Your task to perform on an android device: Clear the shopping cart on bestbuy.com. Image 0: 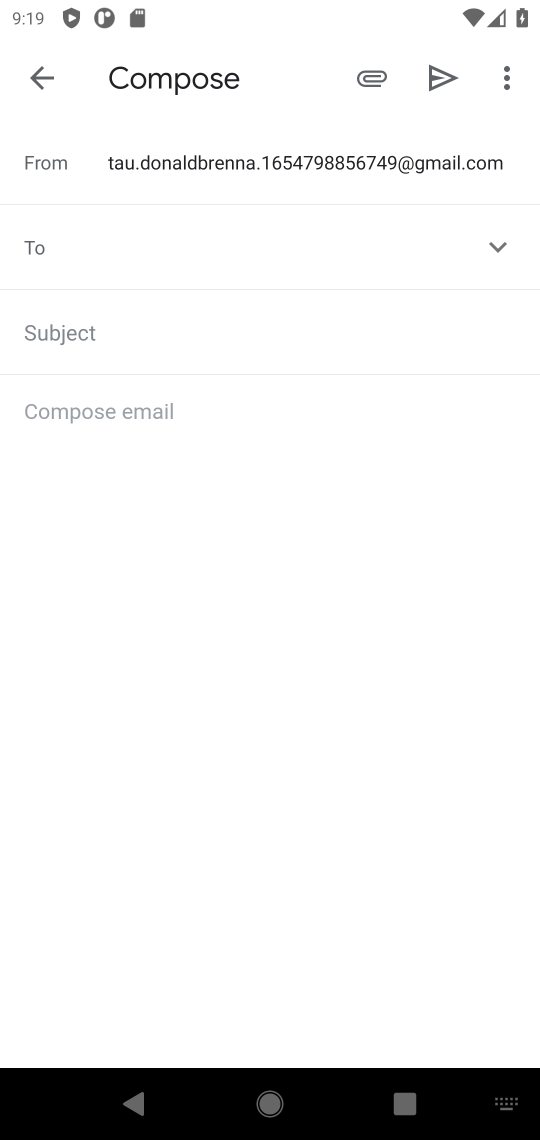
Step 0: press home button
Your task to perform on an android device: Clear the shopping cart on bestbuy.com. Image 1: 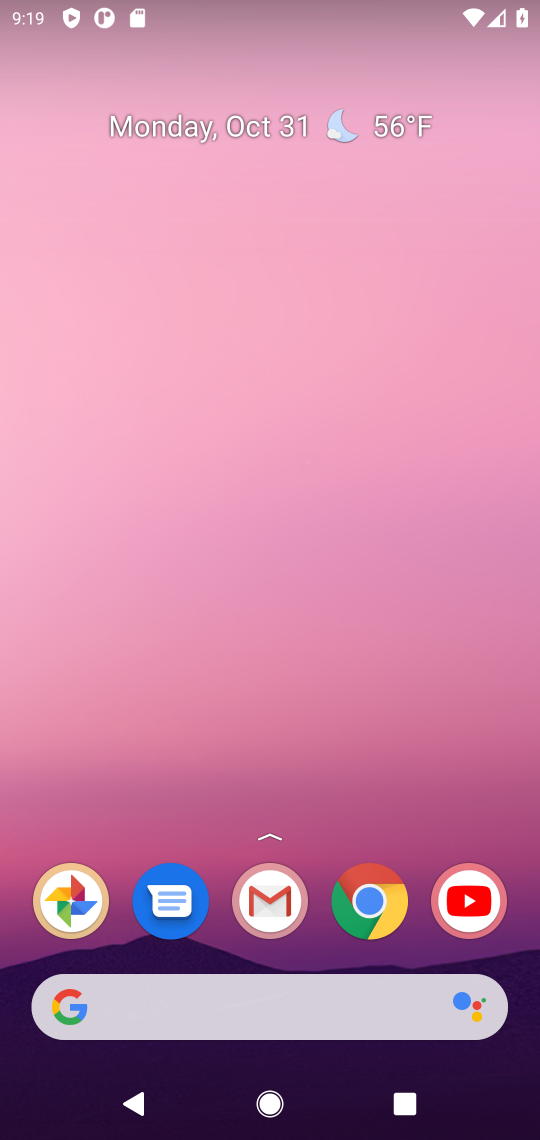
Step 1: drag from (235, 972) to (228, 162)
Your task to perform on an android device: Clear the shopping cart on bestbuy.com. Image 2: 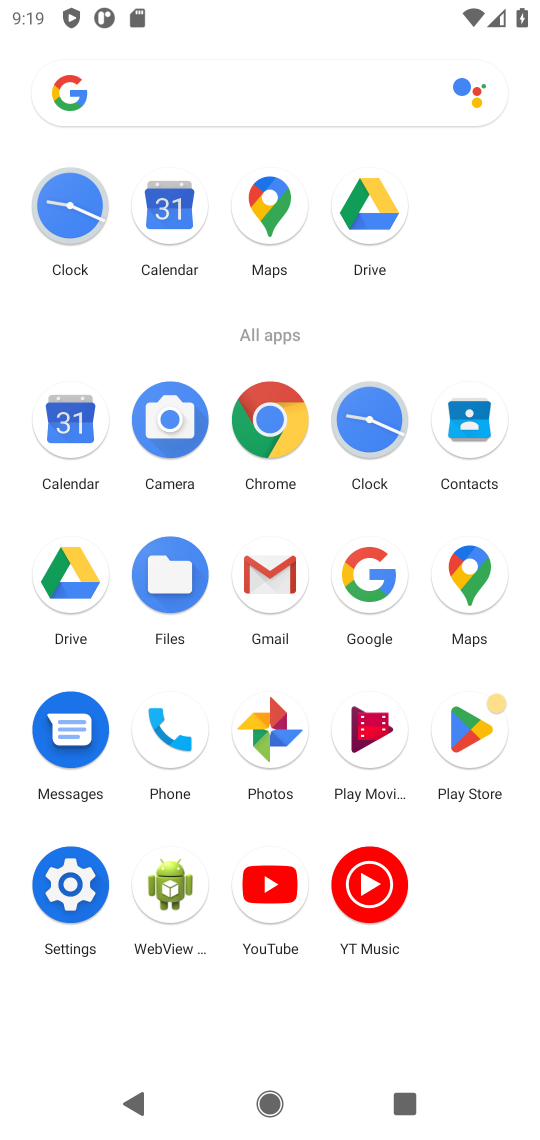
Step 2: click (362, 549)
Your task to perform on an android device: Clear the shopping cart on bestbuy.com. Image 3: 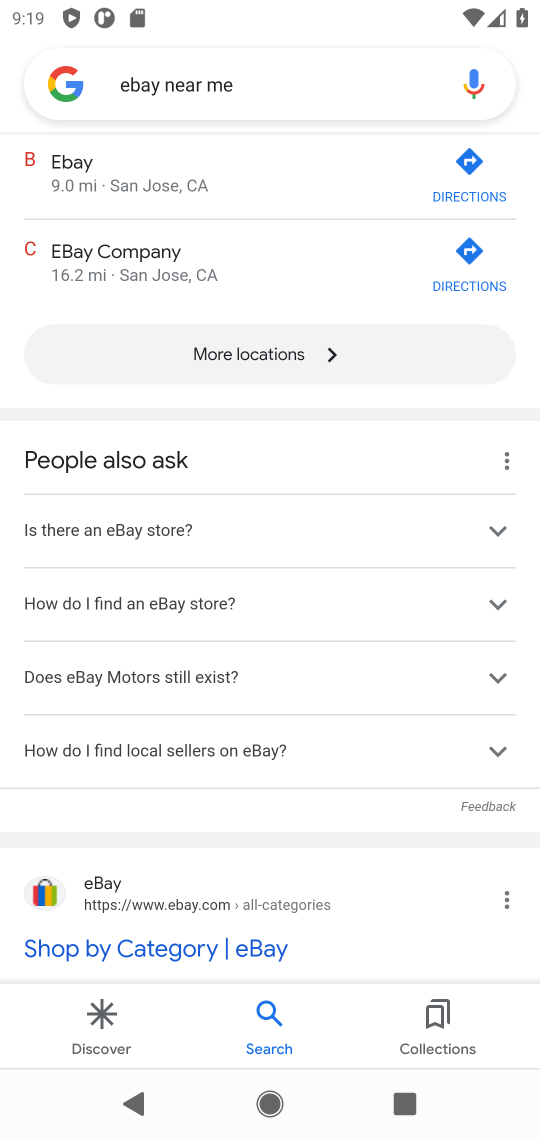
Step 3: click (248, 86)
Your task to perform on an android device: Clear the shopping cart on bestbuy.com. Image 4: 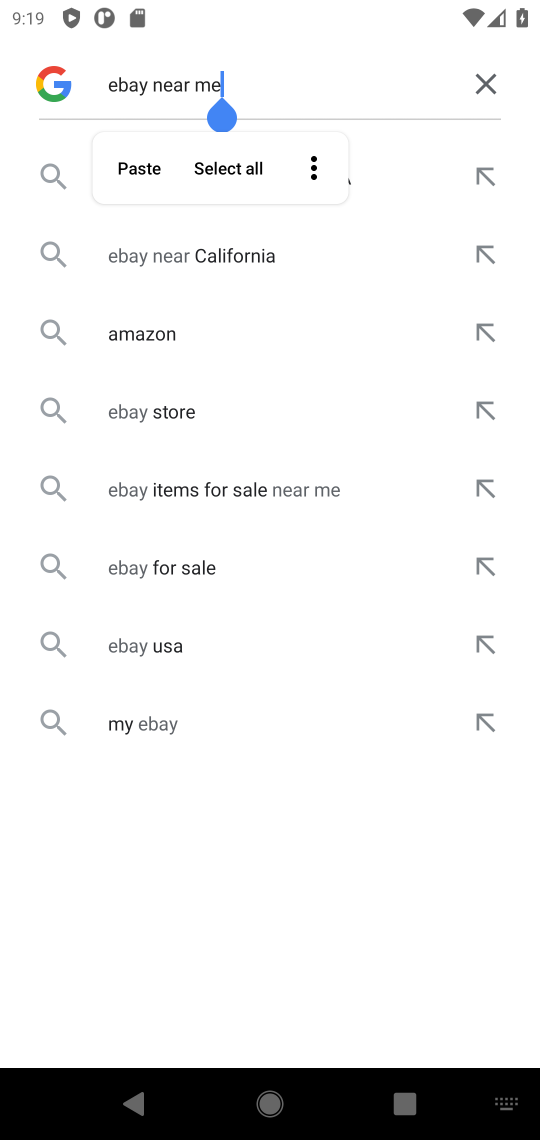
Step 4: click (484, 82)
Your task to perform on an android device: Clear the shopping cart on bestbuy.com. Image 5: 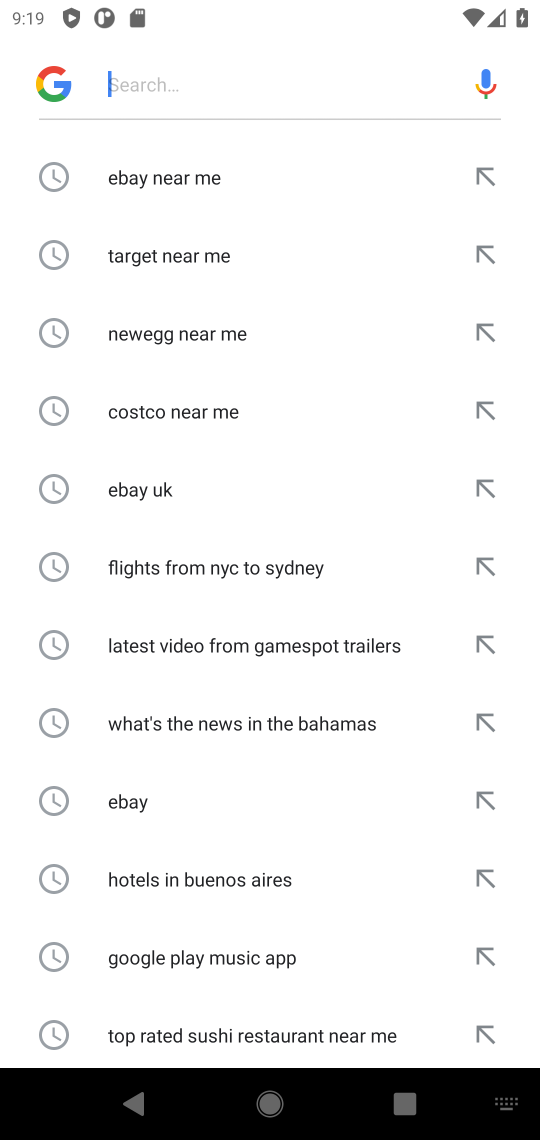
Step 5: click (187, 78)
Your task to perform on an android device: Clear the shopping cart on bestbuy.com. Image 6: 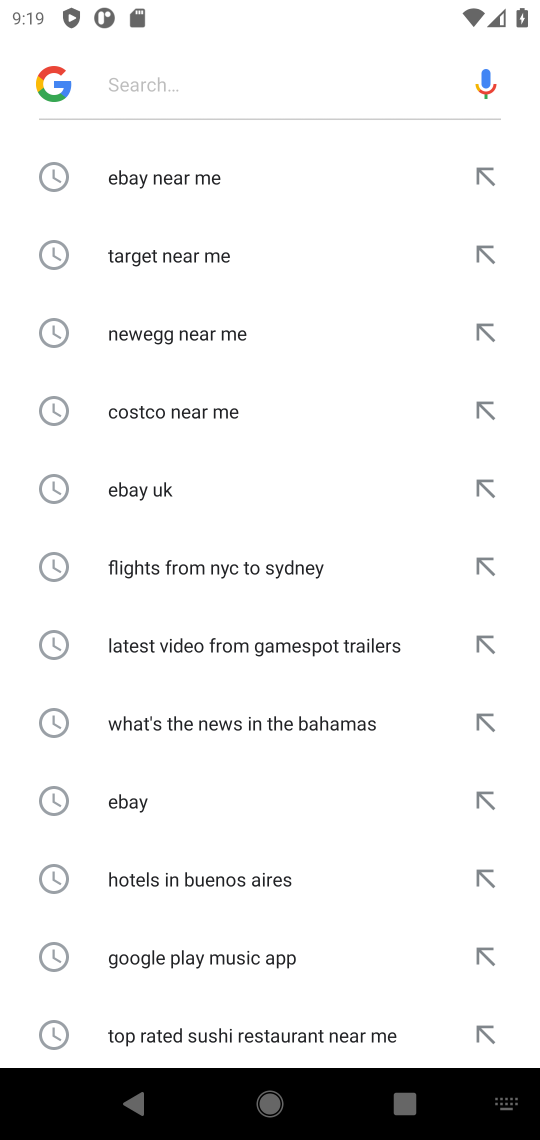
Step 6: type "bestbuy "
Your task to perform on an android device: Clear the shopping cart on bestbuy.com. Image 7: 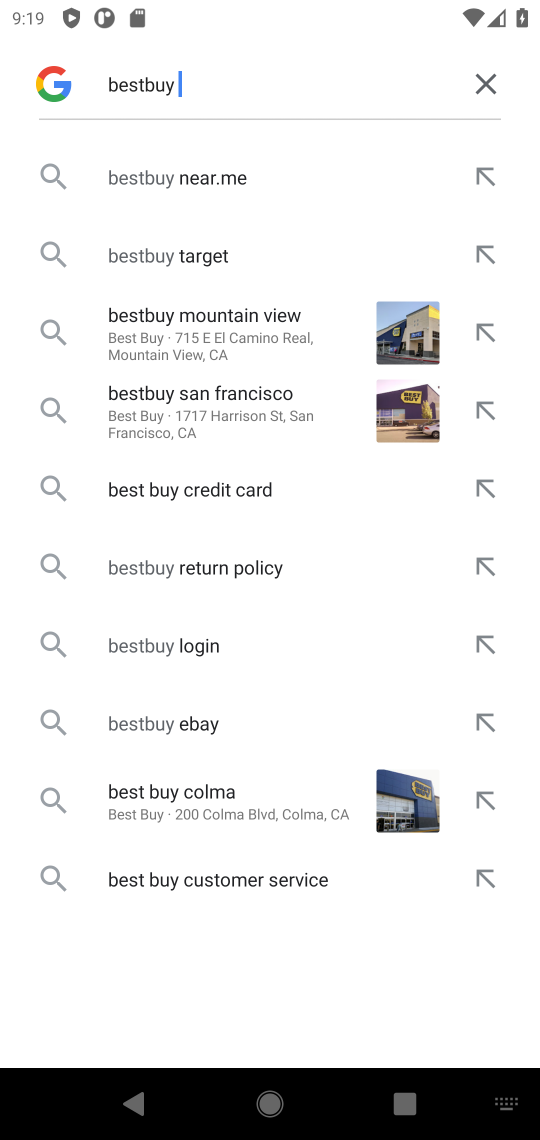
Step 7: click (196, 170)
Your task to perform on an android device: Clear the shopping cart on bestbuy.com. Image 8: 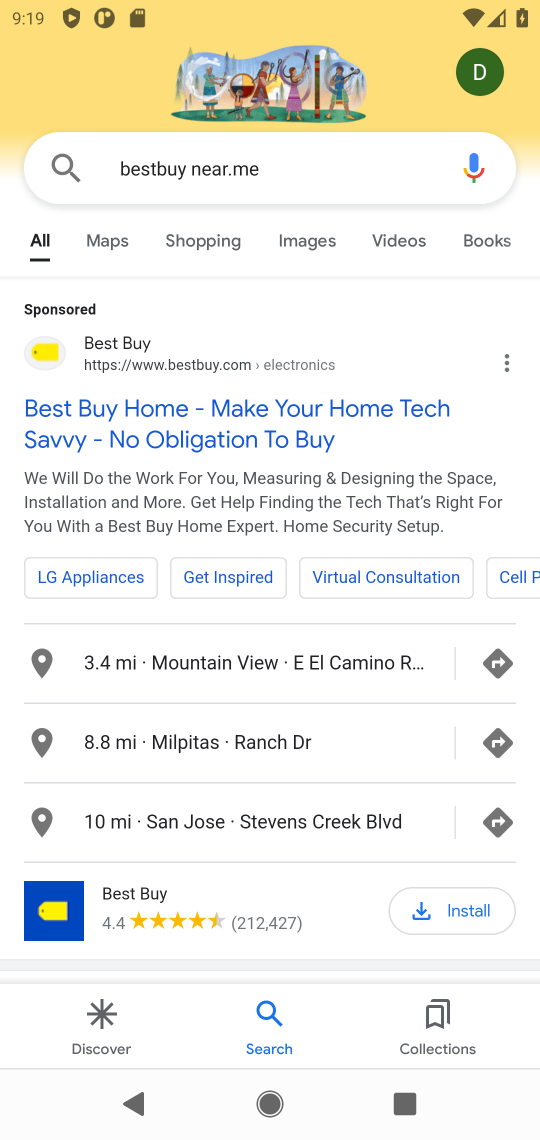
Step 8: click (32, 358)
Your task to perform on an android device: Clear the shopping cart on bestbuy.com. Image 9: 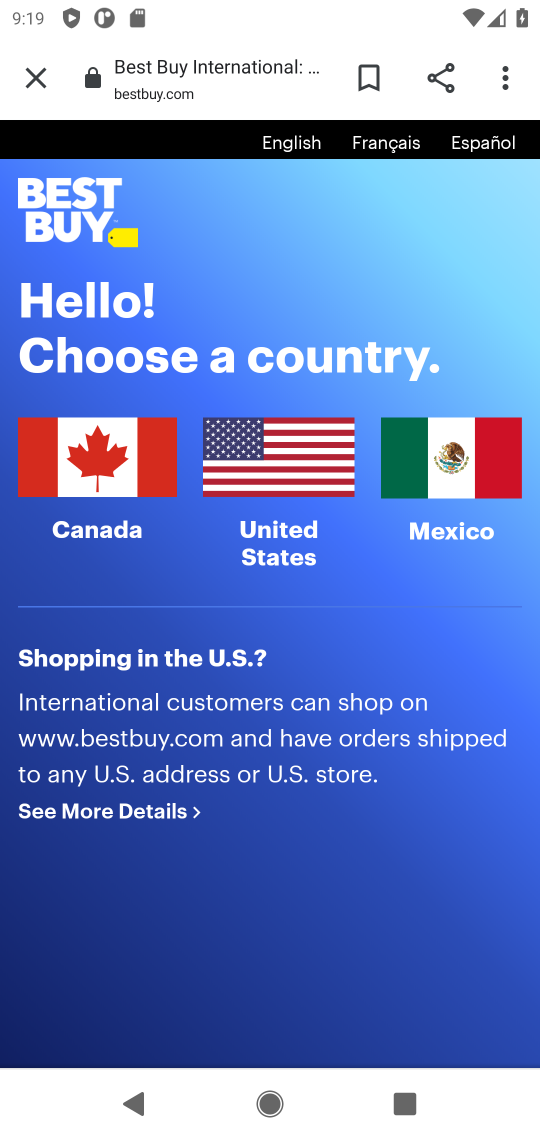
Step 9: click (244, 435)
Your task to perform on an android device: Clear the shopping cart on bestbuy.com. Image 10: 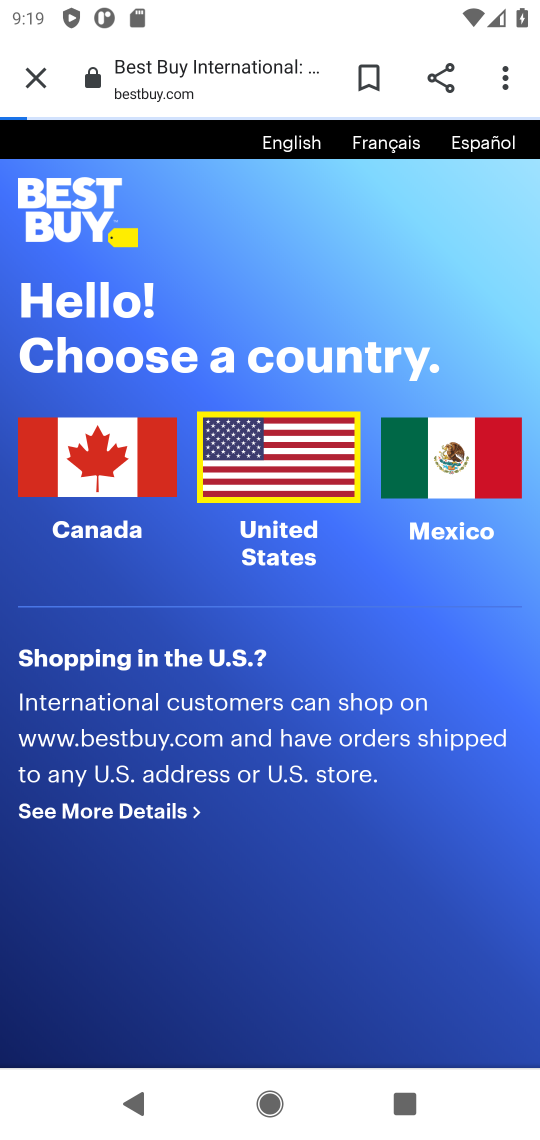
Step 10: click (250, 444)
Your task to perform on an android device: Clear the shopping cart on bestbuy.com. Image 11: 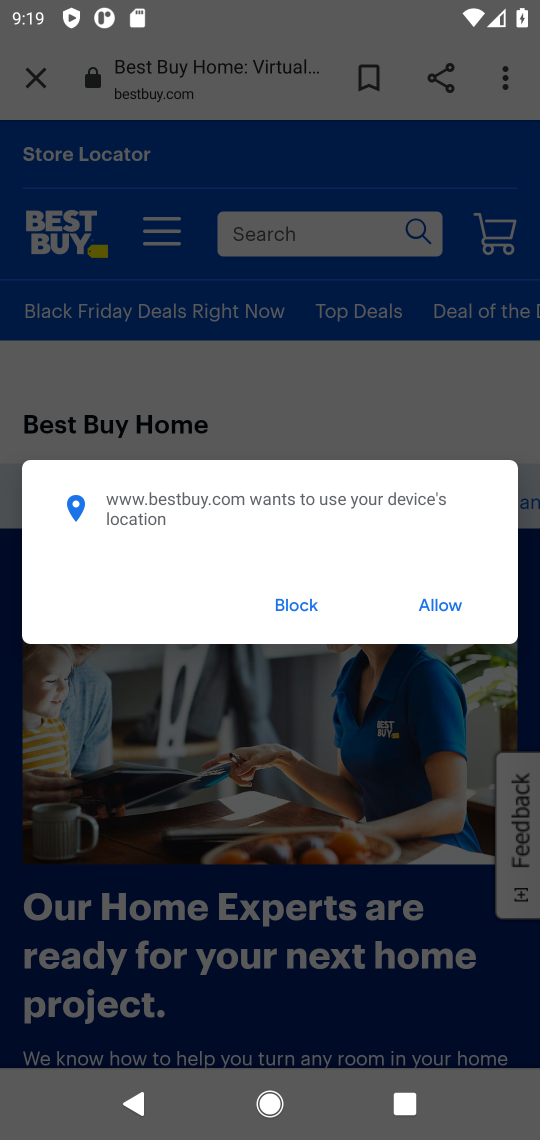
Step 11: click (508, 225)
Your task to perform on an android device: Clear the shopping cart on bestbuy.com. Image 12: 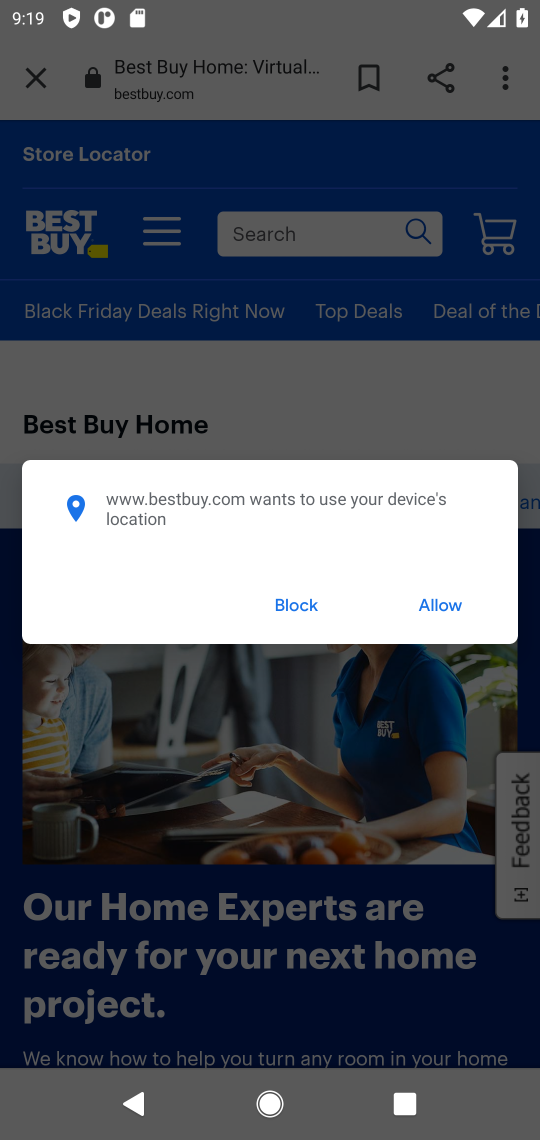
Step 12: click (451, 599)
Your task to perform on an android device: Clear the shopping cart on bestbuy.com. Image 13: 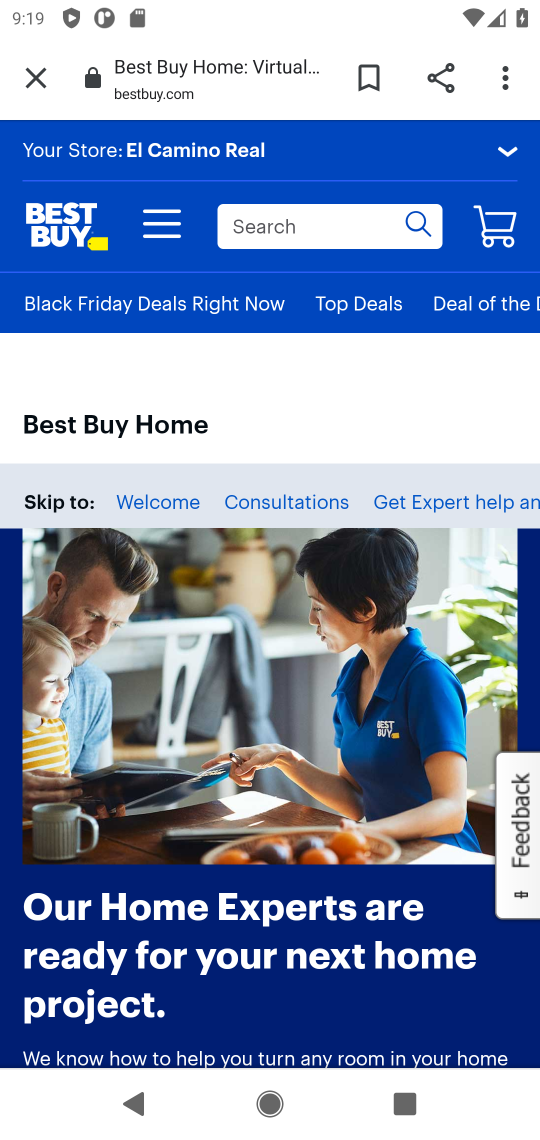
Step 13: click (490, 249)
Your task to perform on an android device: Clear the shopping cart on bestbuy.com. Image 14: 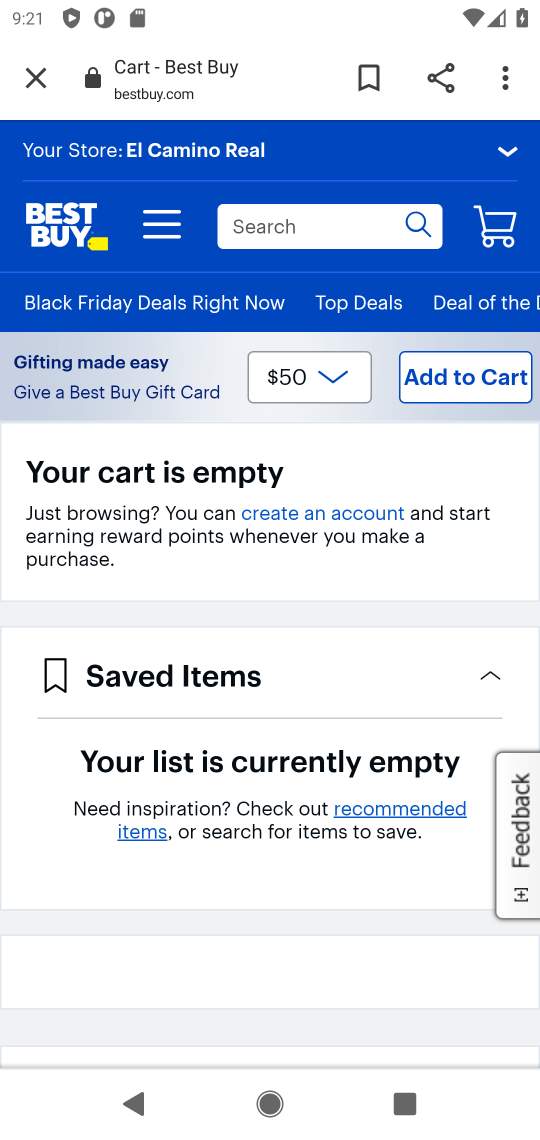
Step 14: task complete